Your task to perform on an android device: add a contact in the contacts app Image 0: 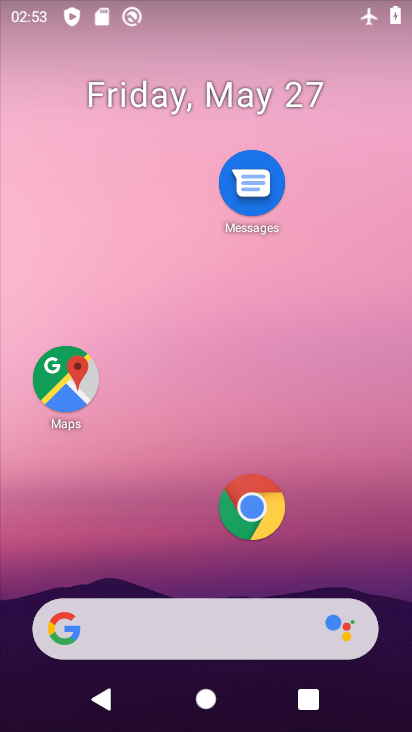
Step 0: drag from (196, 573) to (196, 166)
Your task to perform on an android device: add a contact in the contacts app Image 1: 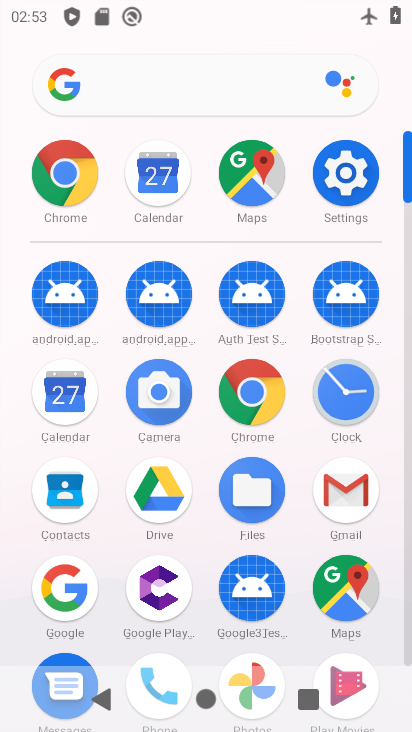
Step 1: click (60, 490)
Your task to perform on an android device: add a contact in the contacts app Image 2: 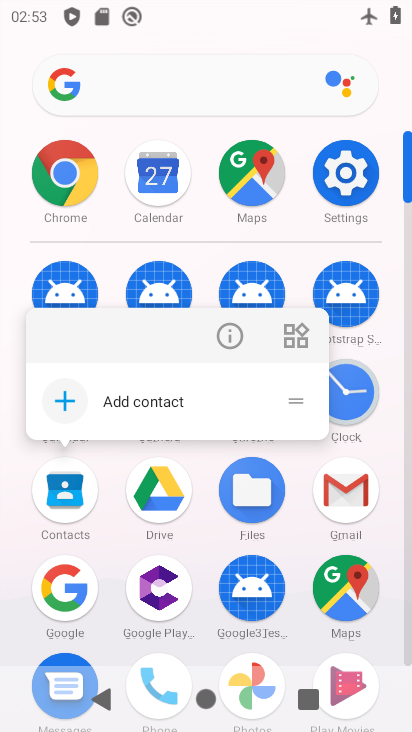
Step 2: click (236, 325)
Your task to perform on an android device: add a contact in the contacts app Image 3: 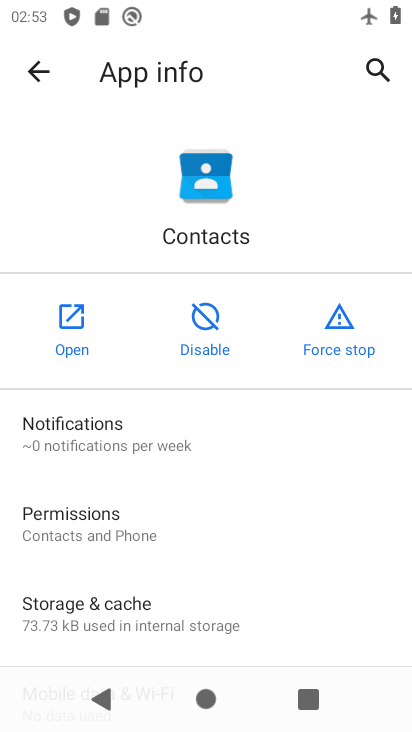
Step 3: click (81, 333)
Your task to perform on an android device: add a contact in the contacts app Image 4: 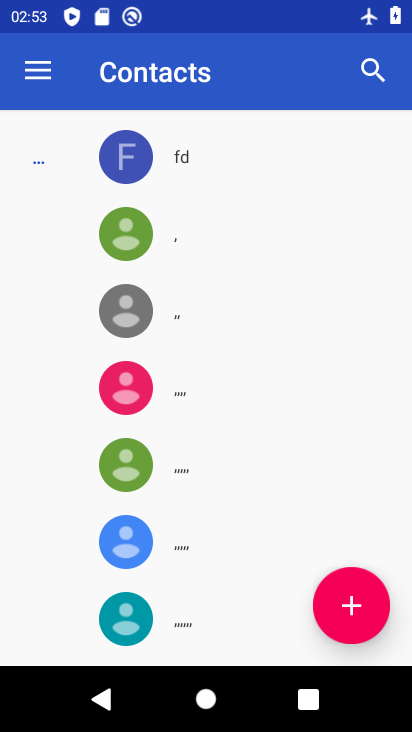
Step 4: click (342, 593)
Your task to perform on an android device: add a contact in the contacts app Image 5: 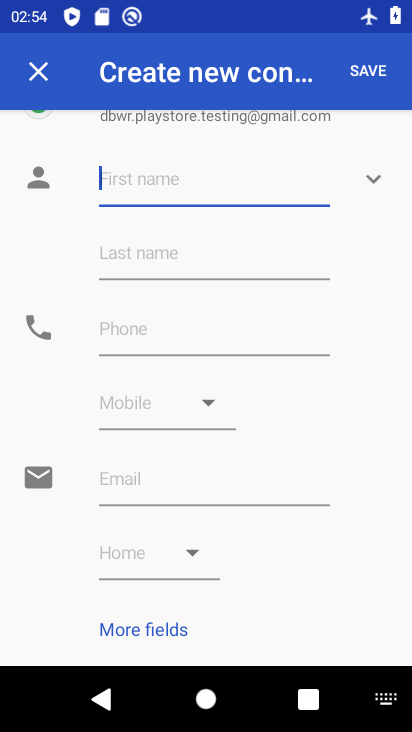
Step 5: type "add"
Your task to perform on an android device: add a contact in the contacts app Image 6: 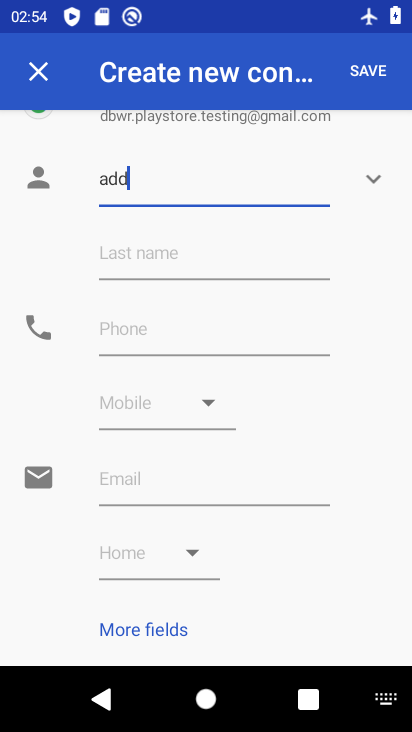
Step 6: type ""
Your task to perform on an android device: add a contact in the contacts app Image 7: 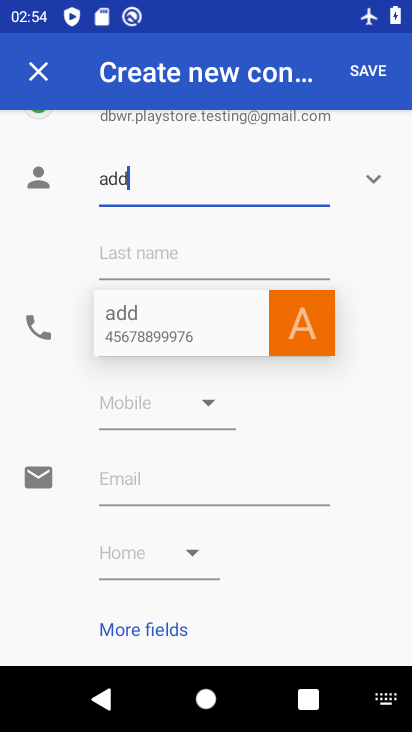
Step 7: click (365, 73)
Your task to perform on an android device: add a contact in the contacts app Image 8: 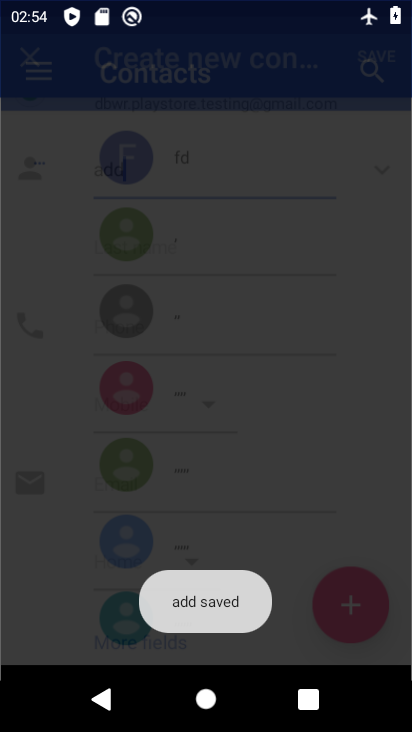
Step 8: task complete